Your task to perform on an android device: What's the weather going to be this weekend? Image 0: 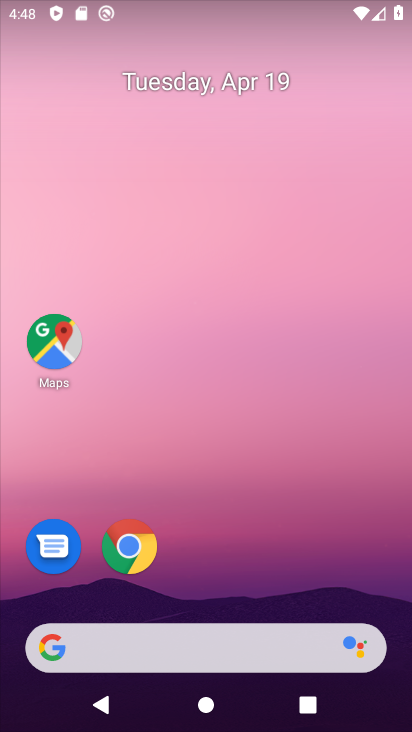
Step 0: drag from (297, 523) to (6, 326)
Your task to perform on an android device: What's the weather going to be this weekend? Image 1: 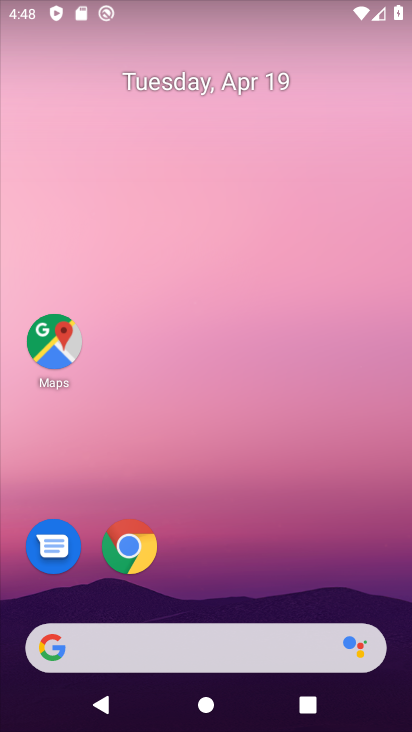
Step 1: click (282, 652)
Your task to perform on an android device: What's the weather going to be this weekend? Image 2: 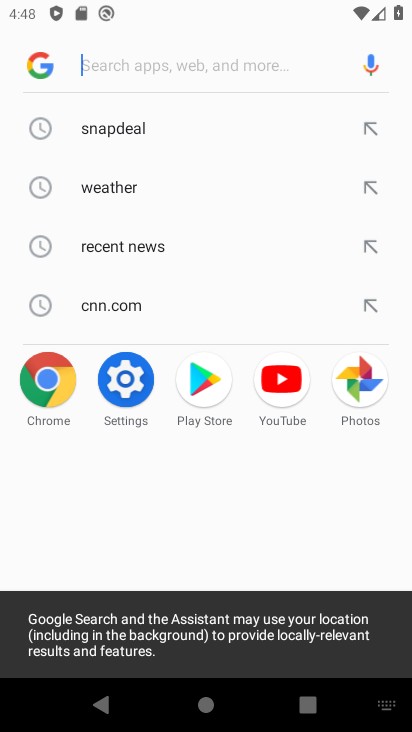
Step 2: click (225, 82)
Your task to perform on an android device: What's the weather going to be this weekend? Image 3: 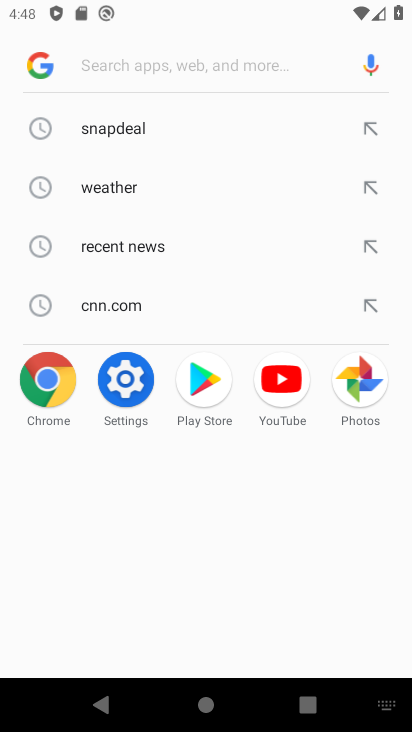
Step 3: type "weather this weekend"
Your task to perform on an android device: What's the weather going to be this weekend? Image 4: 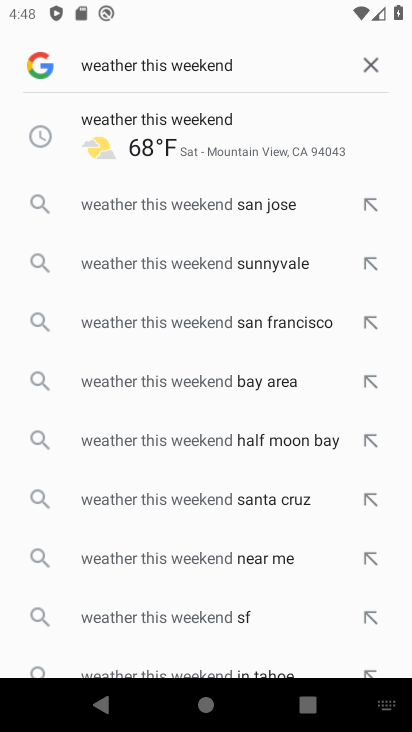
Step 4: click (266, 175)
Your task to perform on an android device: What's the weather going to be this weekend? Image 5: 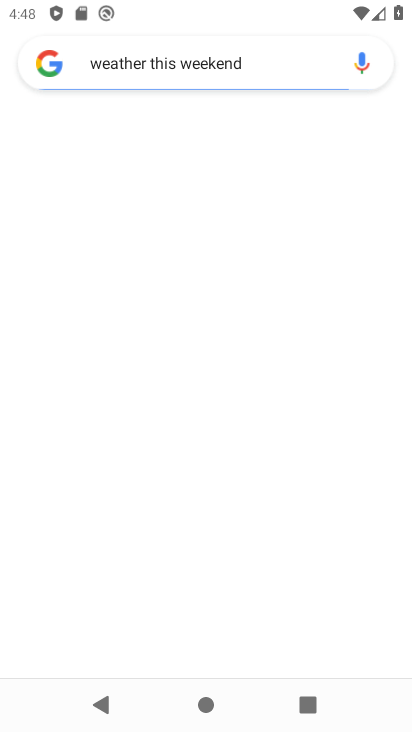
Step 5: click (221, 133)
Your task to perform on an android device: What's the weather going to be this weekend? Image 6: 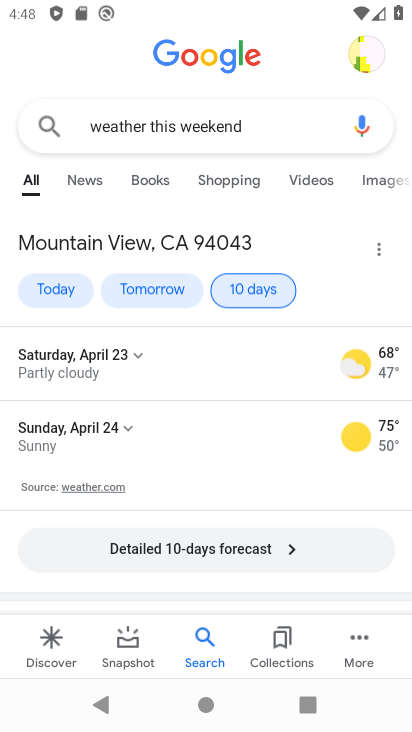
Step 6: task complete